Your task to perform on an android device: set an alarm Image 0: 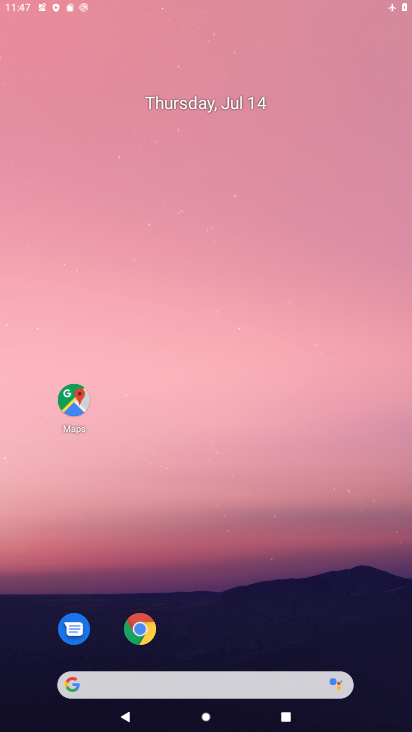
Step 0: press home button
Your task to perform on an android device: set an alarm Image 1: 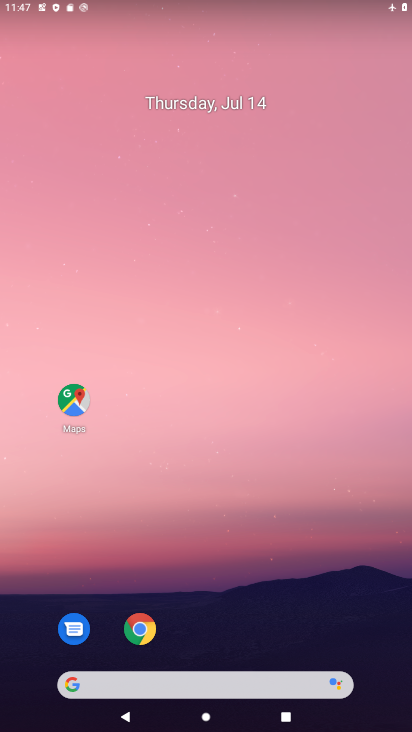
Step 1: drag from (253, 619) to (332, 30)
Your task to perform on an android device: set an alarm Image 2: 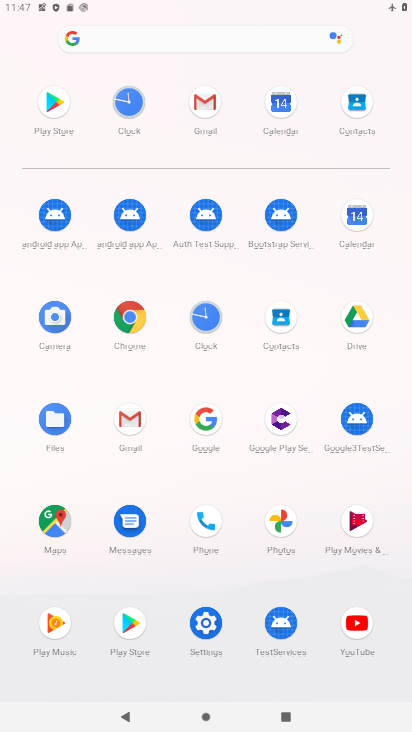
Step 2: click (139, 102)
Your task to perform on an android device: set an alarm Image 3: 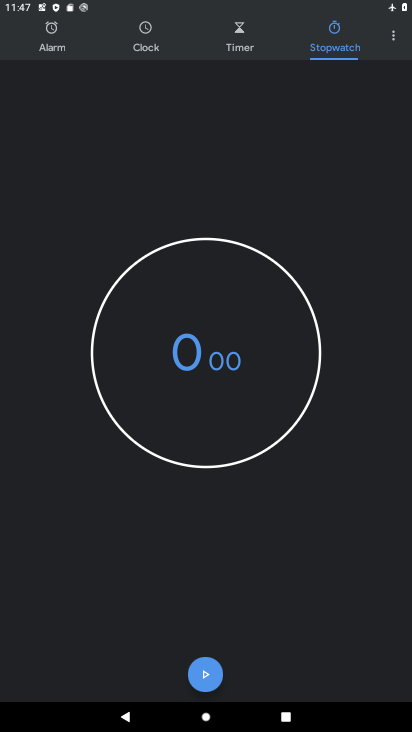
Step 3: click (55, 33)
Your task to perform on an android device: set an alarm Image 4: 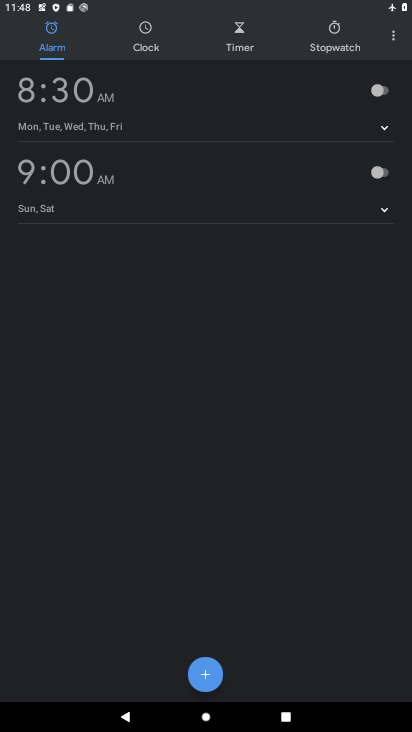
Step 4: click (378, 89)
Your task to perform on an android device: set an alarm Image 5: 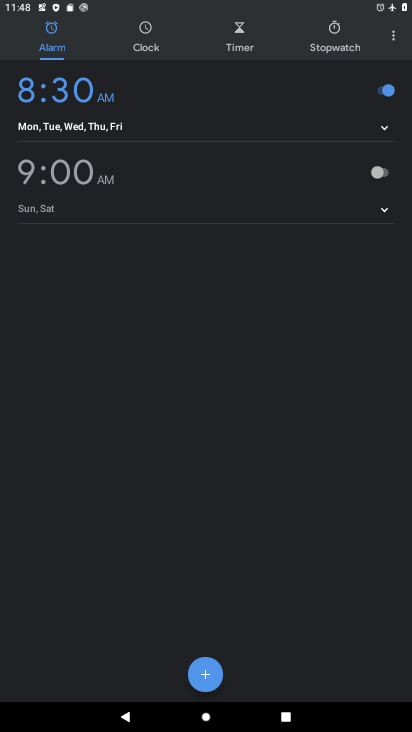
Step 5: task complete